Your task to perform on an android device: turn off priority inbox in the gmail app Image 0: 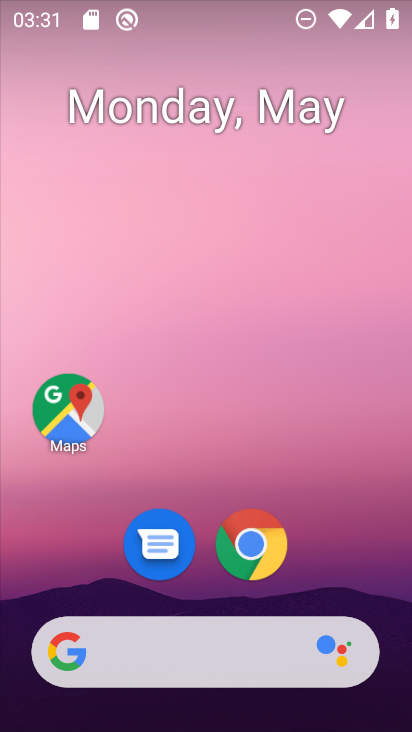
Step 0: drag from (347, 576) to (377, 181)
Your task to perform on an android device: turn off priority inbox in the gmail app Image 1: 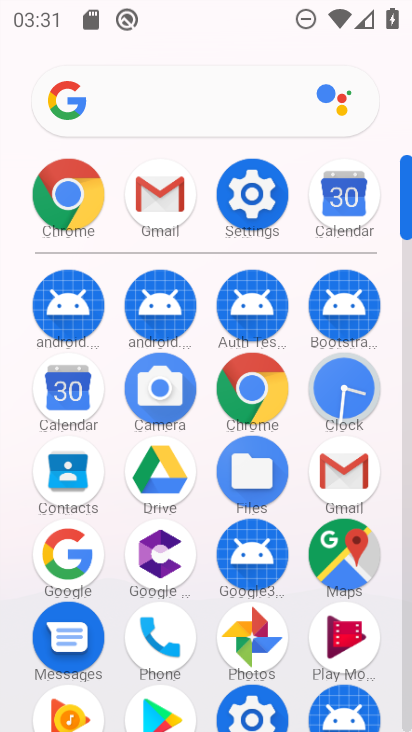
Step 1: click (359, 459)
Your task to perform on an android device: turn off priority inbox in the gmail app Image 2: 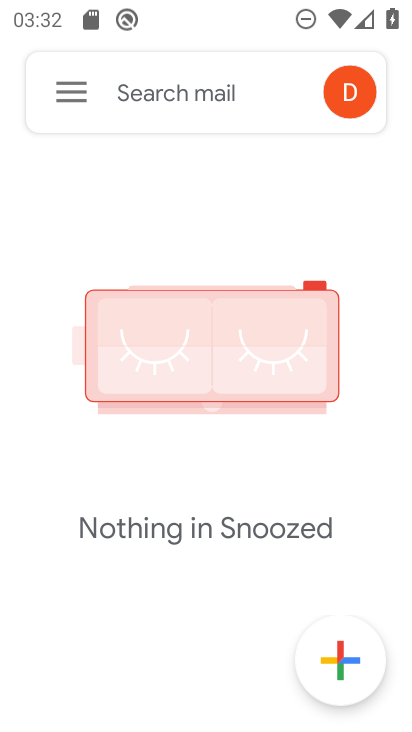
Step 2: click (74, 101)
Your task to perform on an android device: turn off priority inbox in the gmail app Image 3: 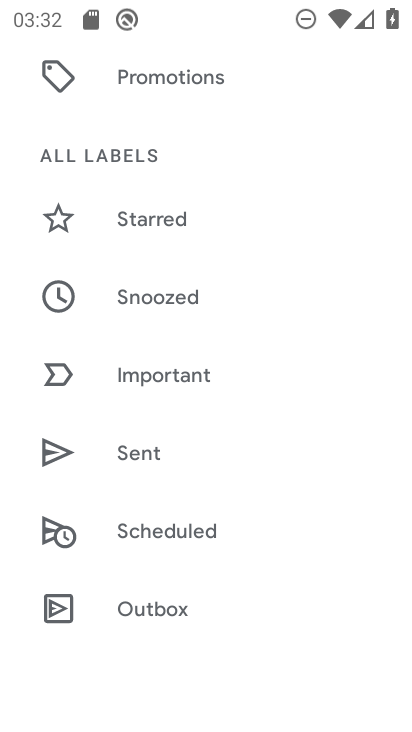
Step 3: drag from (287, 257) to (290, 405)
Your task to perform on an android device: turn off priority inbox in the gmail app Image 4: 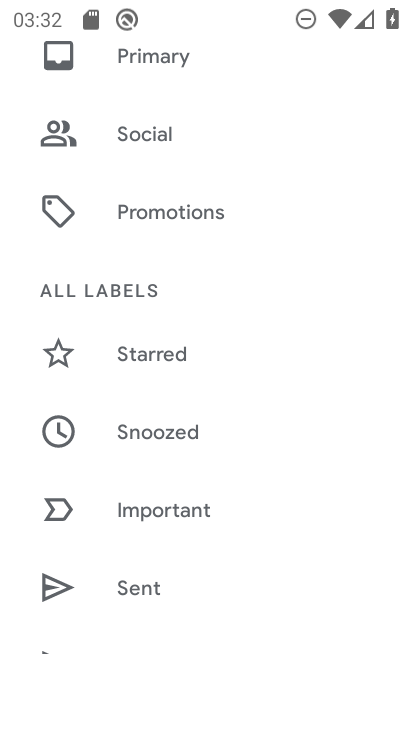
Step 4: drag from (308, 207) to (295, 337)
Your task to perform on an android device: turn off priority inbox in the gmail app Image 5: 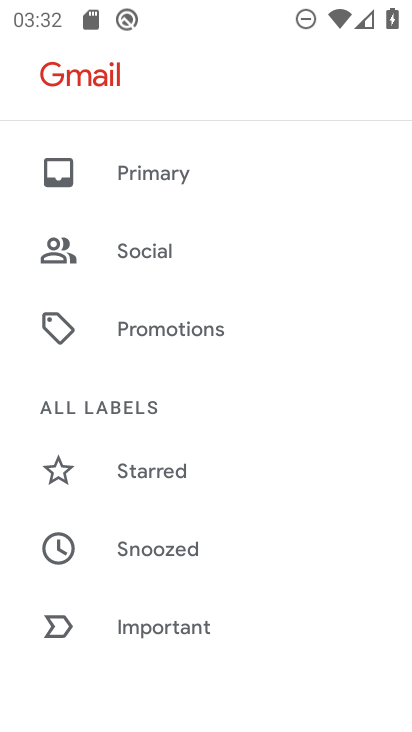
Step 5: drag from (295, 194) to (288, 324)
Your task to perform on an android device: turn off priority inbox in the gmail app Image 6: 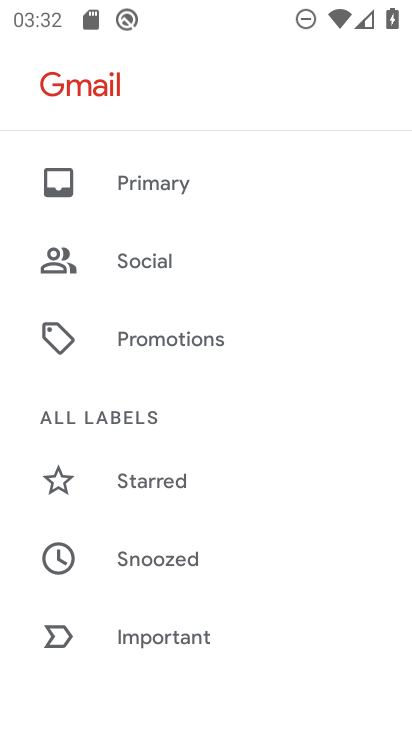
Step 6: drag from (311, 452) to (314, 338)
Your task to perform on an android device: turn off priority inbox in the gmail app Image 7: 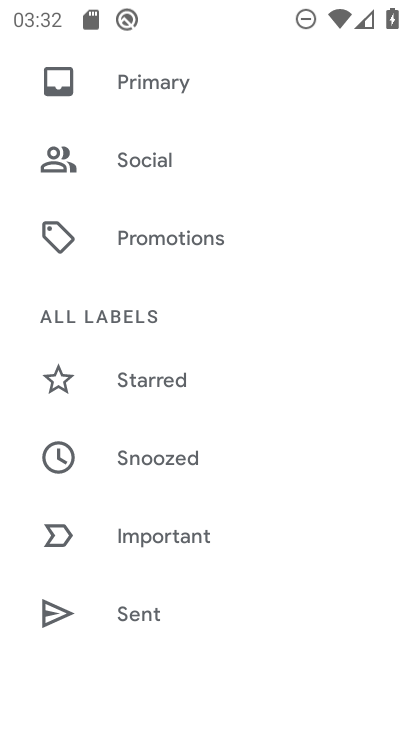
Step 7: drag from (307, 457) to (304, 370)
Your task to perform on an android device: turn off priority inbox in the gmail app Image 8: 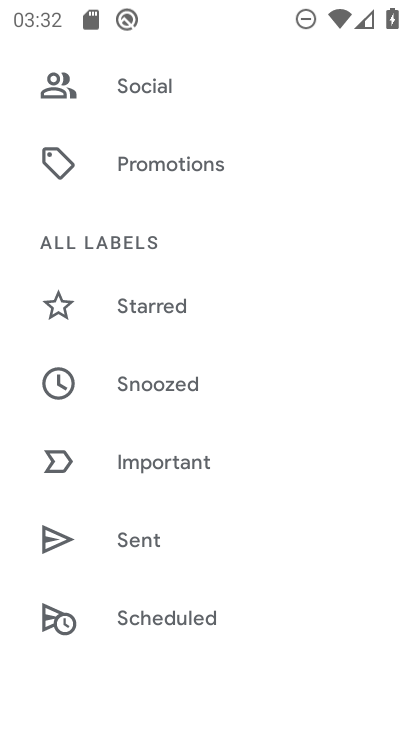
Step 8: drag from (304, 466) to (307, 353)
Your task to perform on an android device: turn off priority inbox in the gmail app Image 9: 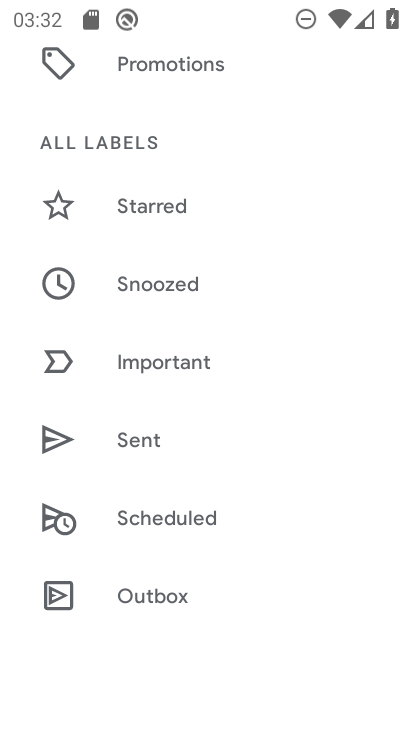
Step 9: drag from (311, 487) to (308, 344)
Your task to perform on an android device: turn off priority inbox in the gmail app Image 10: 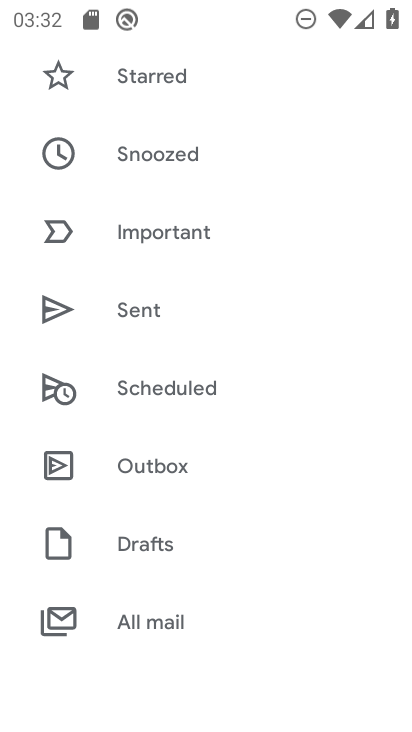
Step 10: drag from (286, 506) to (279, 339)
Your task to perform on an android device: turn off priority inbox in the gmail app Image 11: 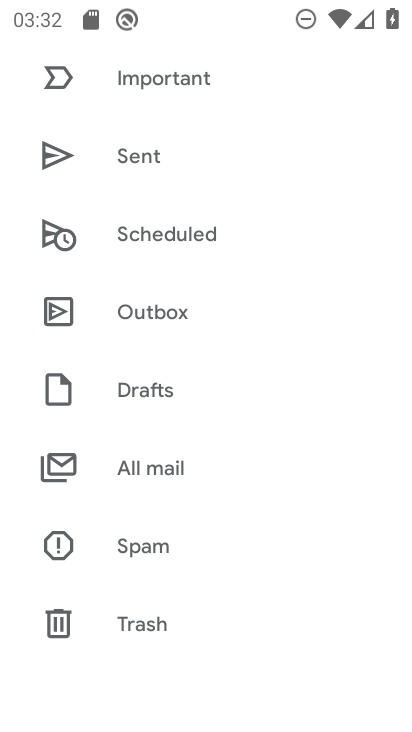
Step 11: drag from (253, 576) to (4, 572)
Your task to perform on an android device: turn off priority inbox in the gmail app Image 12: 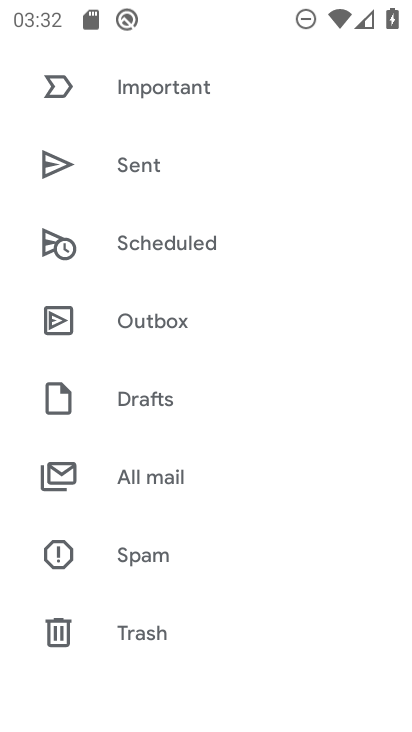
Step 12: drag from (261, 583) to (302, 329)
Your task to perform on an android device: turn off priority inbox in the gmail app Image 13: 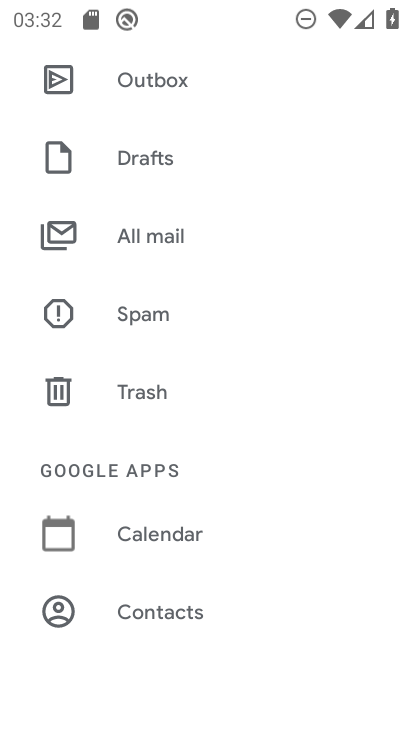
Step 13: drag from (292, 572) to (304, 394)
Your task to perform on an android device: turn off priority inbox in the gmail app Image 14: 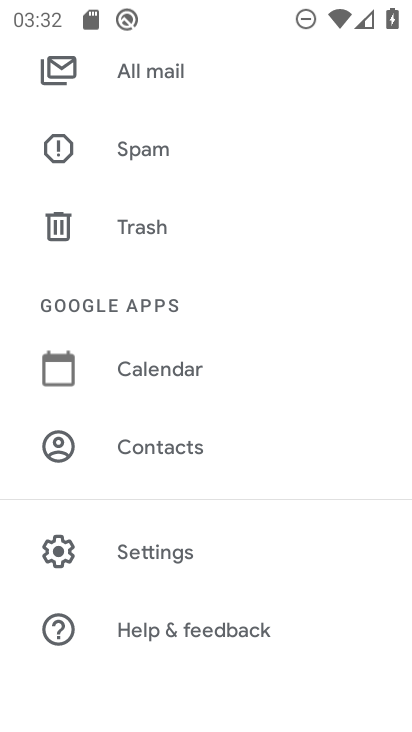
Step 14: click (219, 568)
Your task to perform on an android device: turn off priority inbox in the gmail app Image 15: 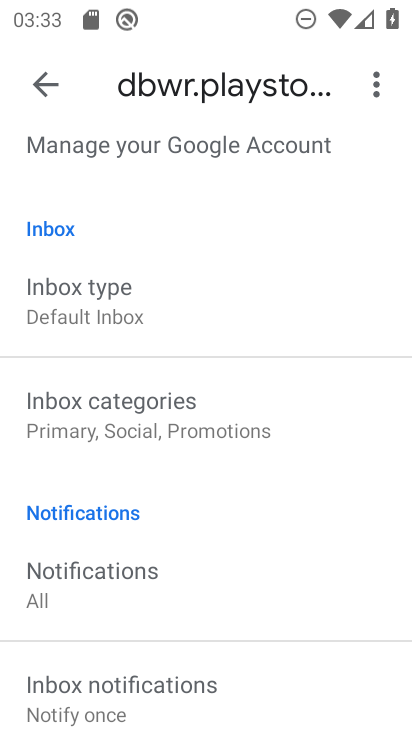
Step 15: task complete